Your task to perform on an android device: turn on the 12-hour format for clock Image 0: 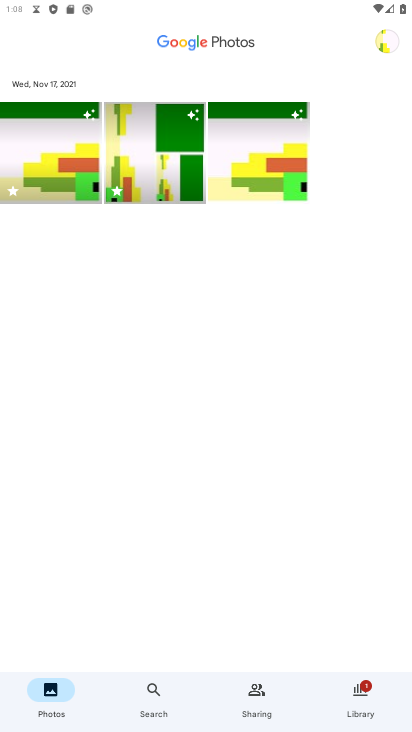
Step 0: press home button
Your task to perform on an android device: turn on the 12-hour format for clock Image 1: 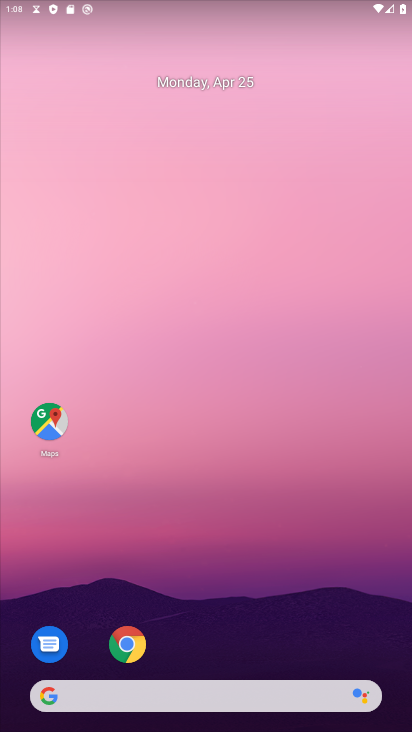
Step 1: drag from (367, 648) to (360, 0)
Your task to perform on an android device: turn on the 12-hour format for clock Image 2: 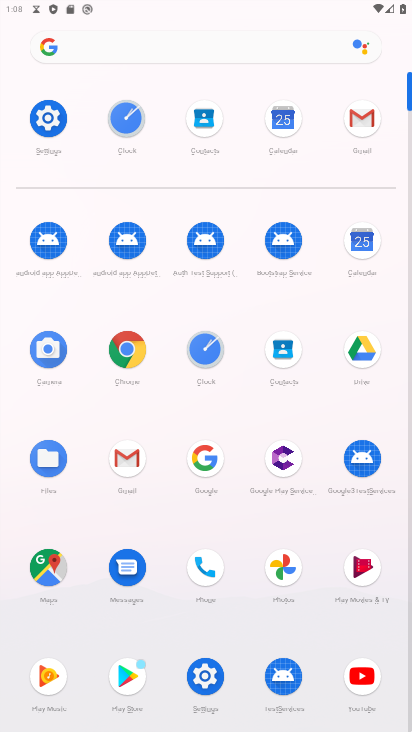
Step 2: click (123, 125)
Your task to perform on an android device: turn on the 12-hour format for clock Image 3: 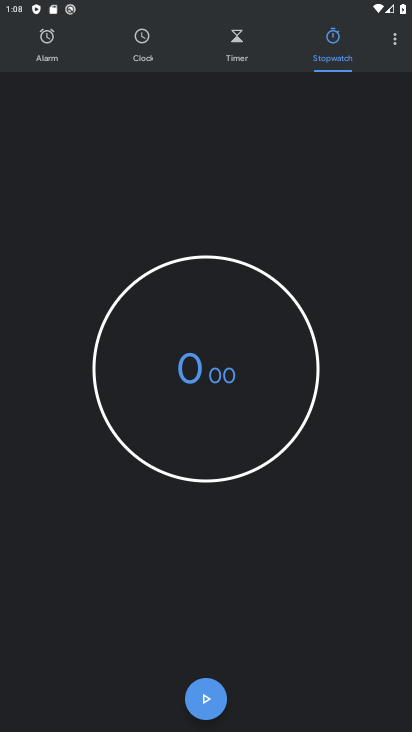
Step 3: click (395, 43)
Your task to perform on an android device: turn on the 12-hour format for clock Image 4: 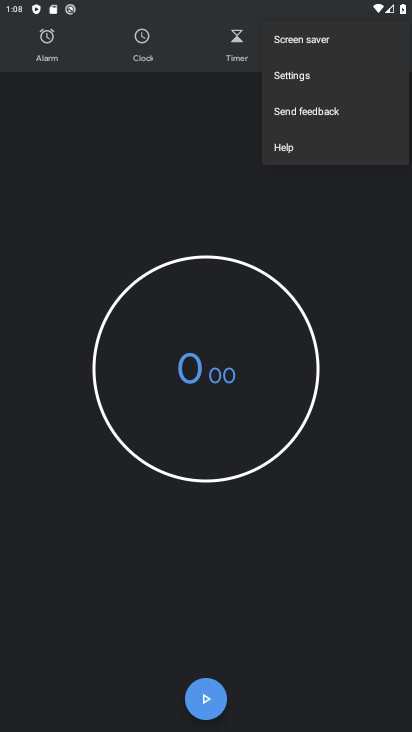
Step 4: click (285, 79)
Your task to perform on an android device: turn on the 12-hour format for clock Image 5: 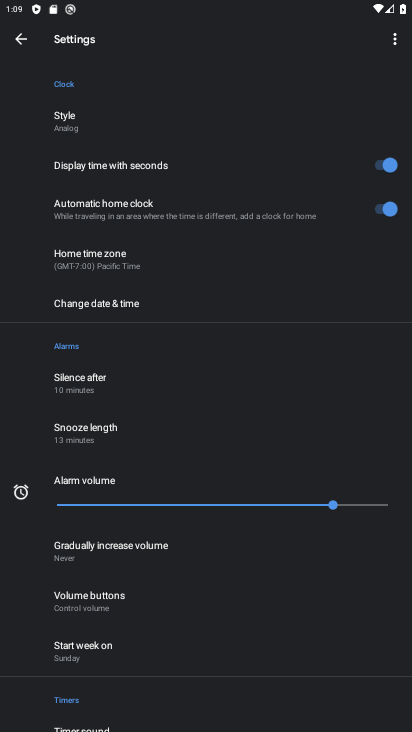
Step 5: click (74, 311)
Your task to perform on an android device: turn on the 12-hour format for clock Image 6: 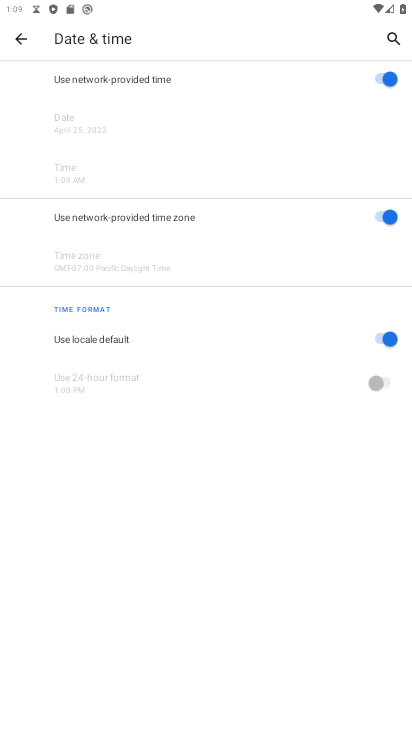
Step 6: task complete